Your task to perform on an android device: open chrome and create a bookmark for the current page Image 0: 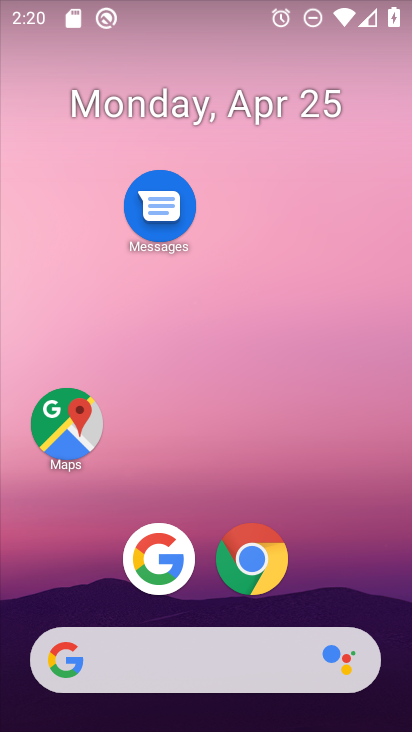
Step 0: click (261, 563)
Your task to perform on an android device: open chrome and create a bookmark for the current page Image 1: 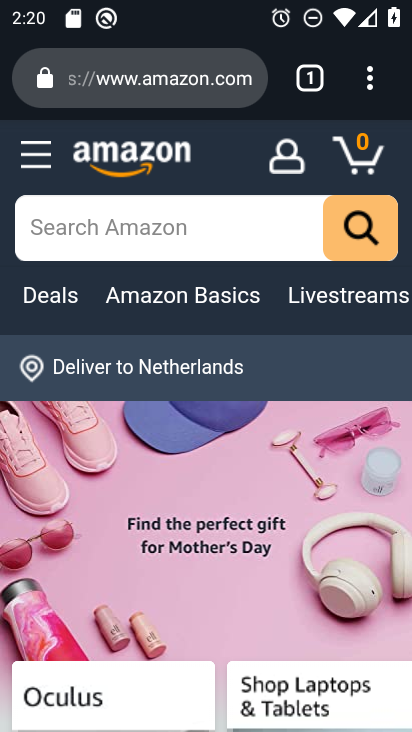
Step 1: click (366, 72)
Your task to perform on an android device: open chrome and create a bookmark for the current page Image 2: 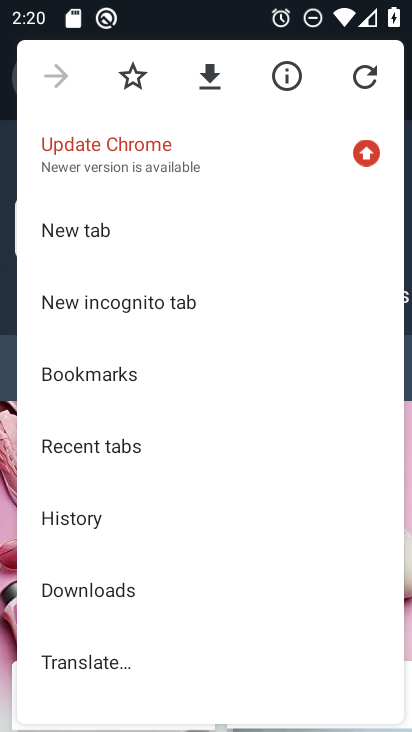
Step 2: click (128, 80)
Your task to perform on an android device: open chrome and create a bookmark for the current page Image 3: 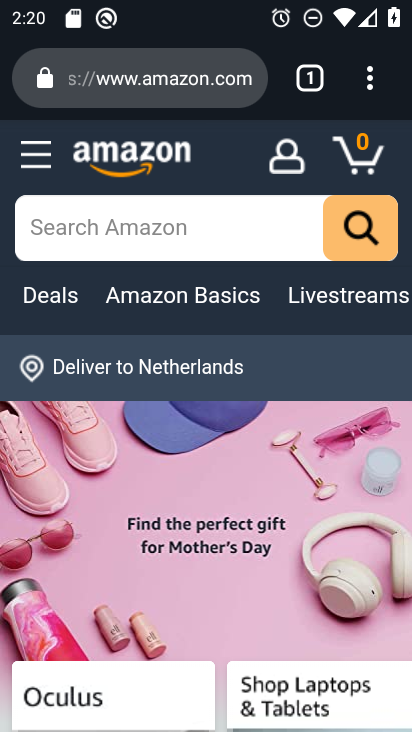
Step 3: task complete